Your task to perform on an android device: change keyboard looks Image 0: 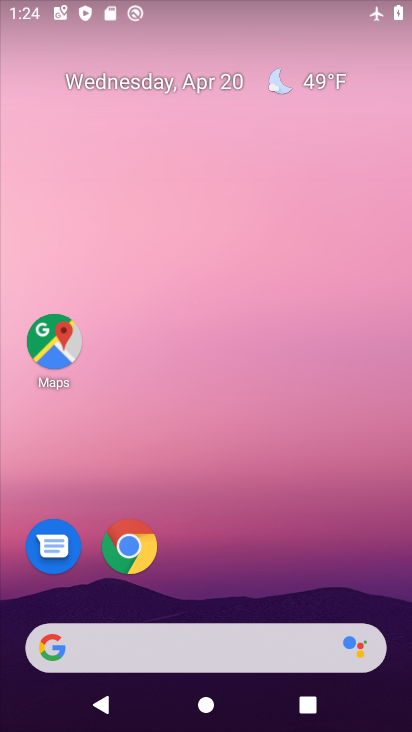
Step 0: drag from (270, 444) to (293, 147)
Your task to perform on an android device: change keyboard looks Image 1: 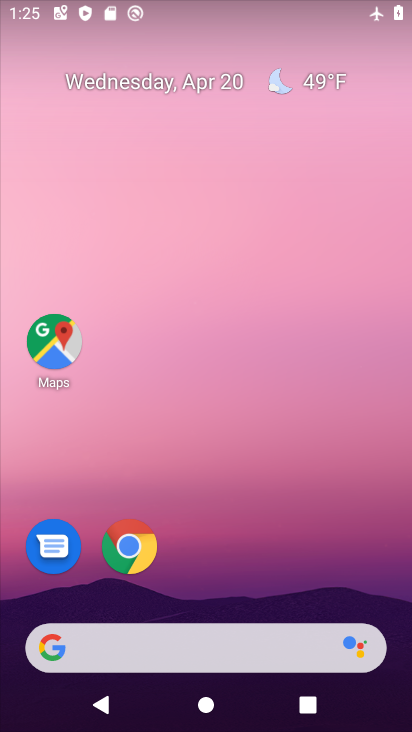
Step 1: drag from (262, 552) to (322, 214)
Your task to perform on an android device: change keyboard looks Image 2: 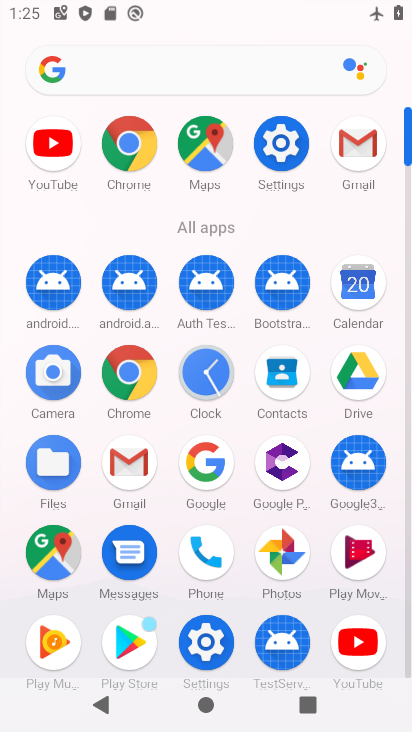
Step 2: click (280, 147)
Your task to perform on an android device: change keyboard looks Image 3: 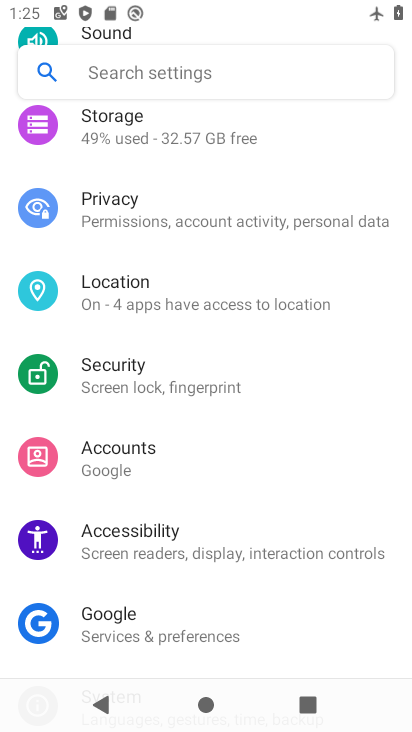
Step 3: drag from (203, 590) to (239, 202)
Your task to perform on an android device: change keyboard looks Image 4: 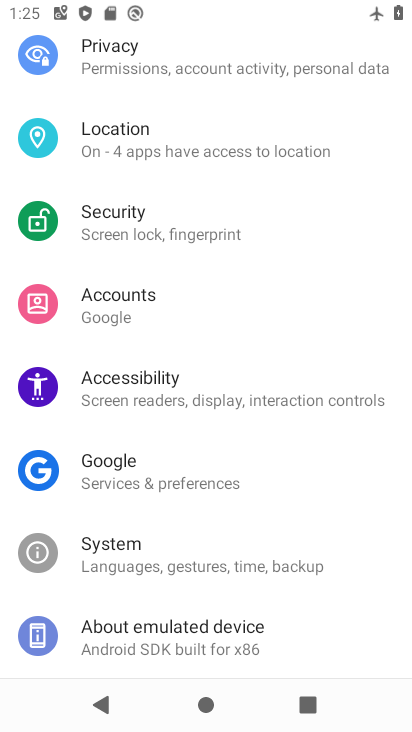
Step 4: click (185, 552)
Your task to perform on an android device: change keyboard looks Image 5: 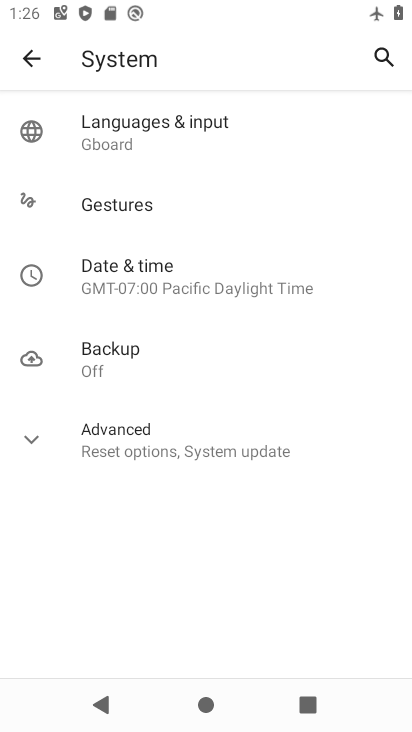
Step 5: click (156, 133)
Your task to perform on an android device: change keyboard looks Image 6: 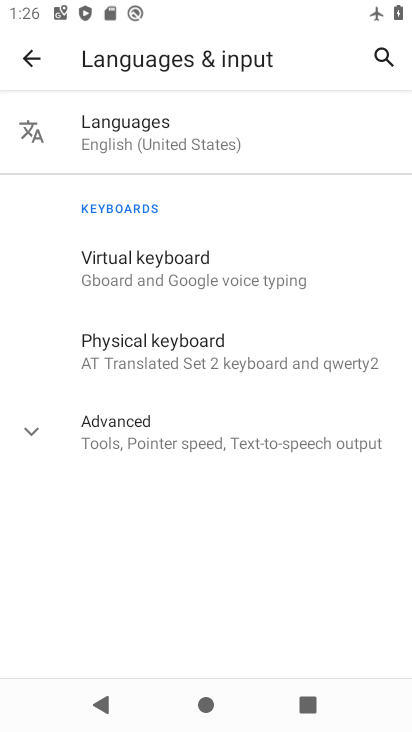
Step 6: click (151, 261)
Your task to perform on an android device: change keyboard looks Image 7: 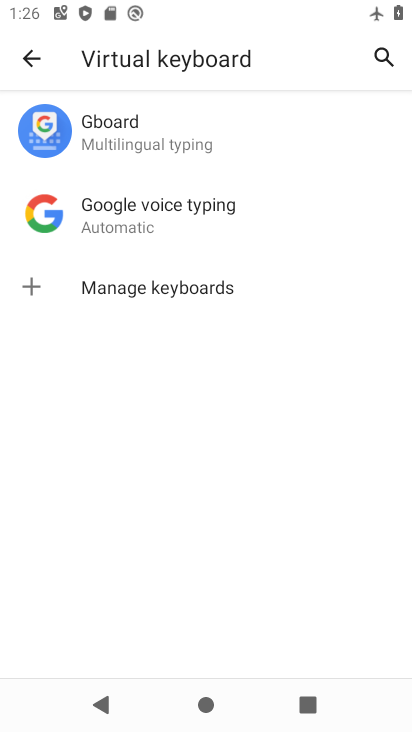
Step 7: click (123, 130)
Your task to perform on an android device: change keyboard looks Image 8: 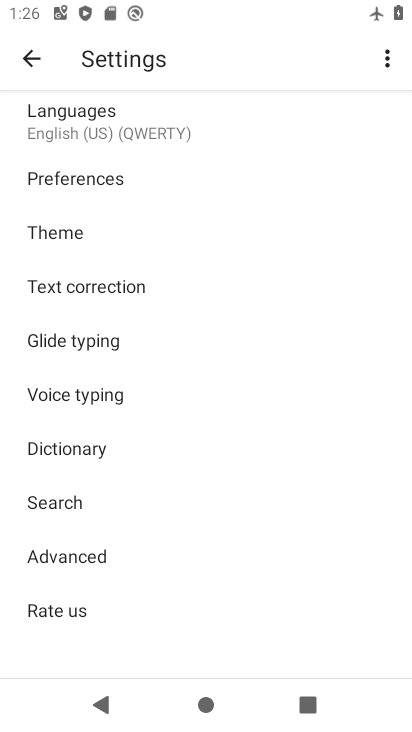
Step 8: click (92, 233)
Your task to perform on an android device: change keyboard looks Image 9: 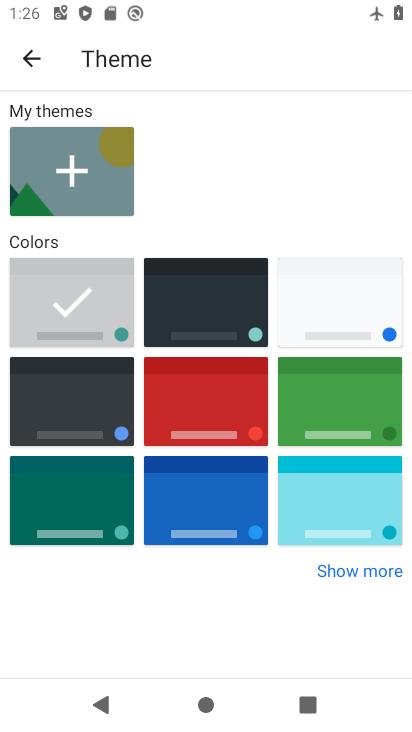
Step 9: click (208, 506)
Your task to perform on an android device: change keyboard looks Image 10: 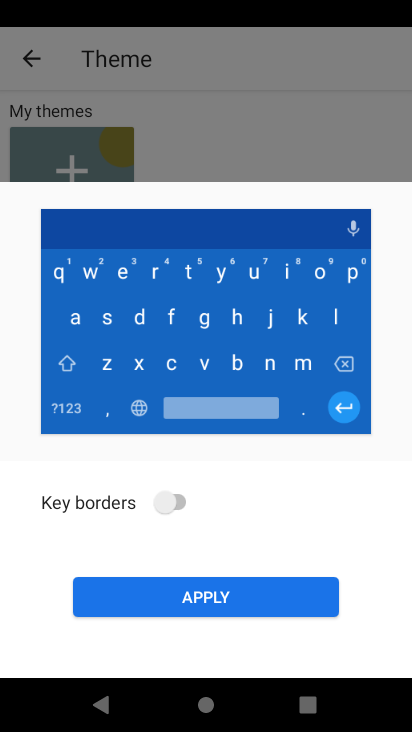
Step 10: click (253, 597)
Your task to perform on an android device: change keyboard looks Image 11: 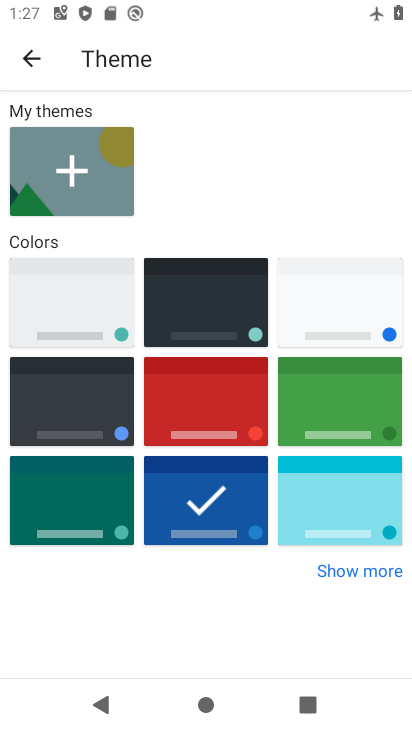
Step 11: click (316, 485)
Your task to perform on an android device: change keyboard looks Image 12: 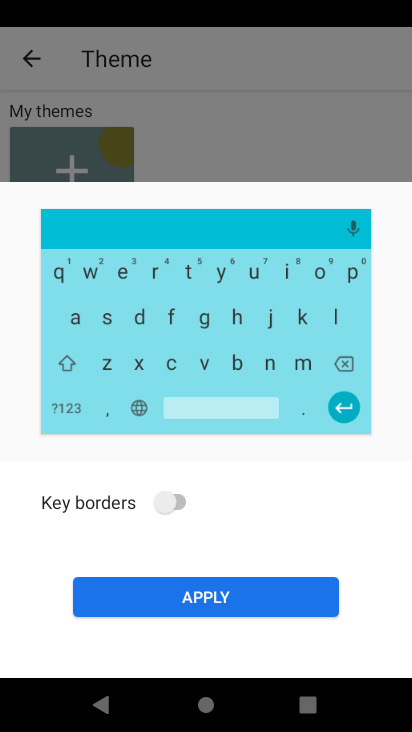
Step 12: click (235, 589)
Your task to perform on an android device: change keyboard looks Image 13: 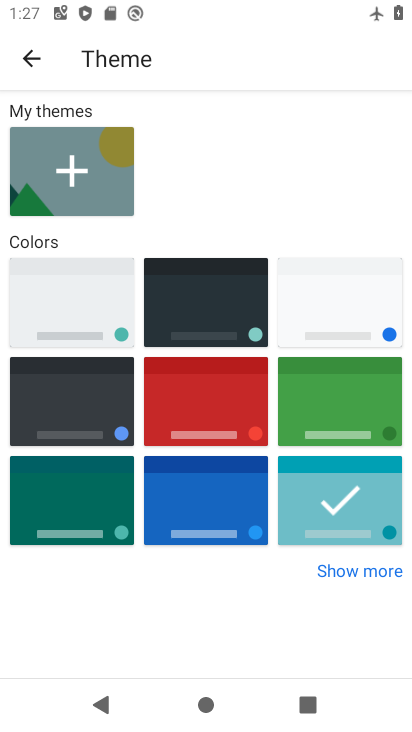
Step 13: task complete